Your task to perform on an android device: snooze an email in the gmail app Image 0: 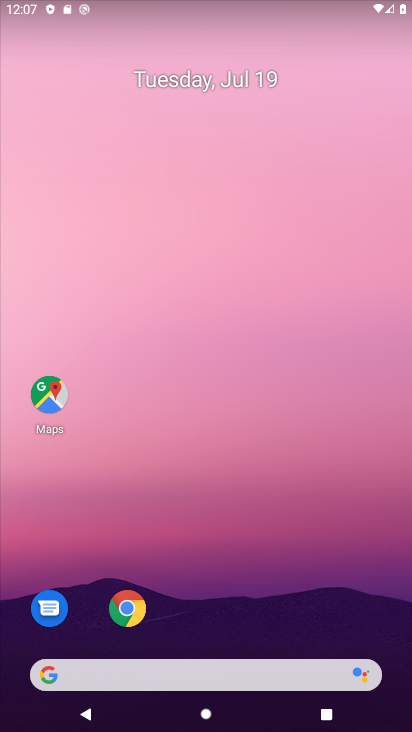
Step 0: drag from (273, 599) to (256, 381)
Your task to perform on an android device: snooze an email in the gmail app Image 1: 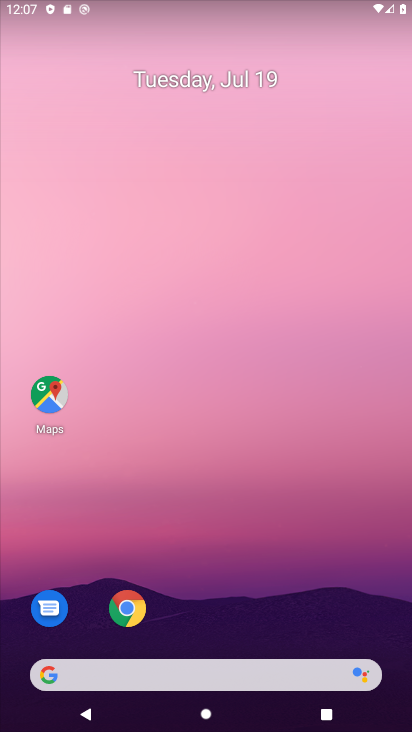
Step 1: drag from (262, 412) to (215, 54)
Your task to perform on an android device: snooze an email in the gmail app Image 2: 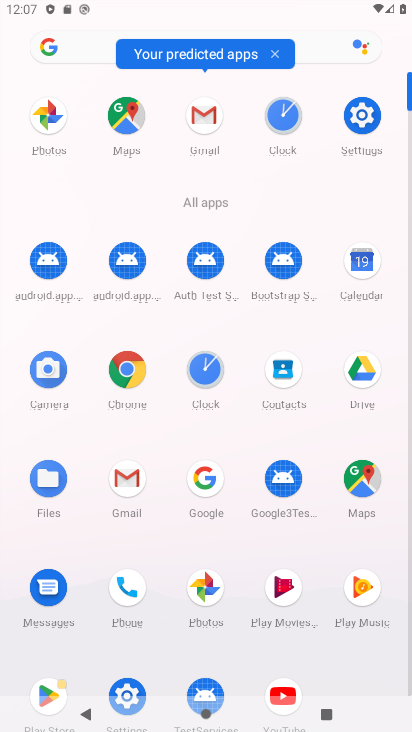
Step 2: click (130, 477)
Your task to perform on an android device: snooze an email in the gmail app Image 3: 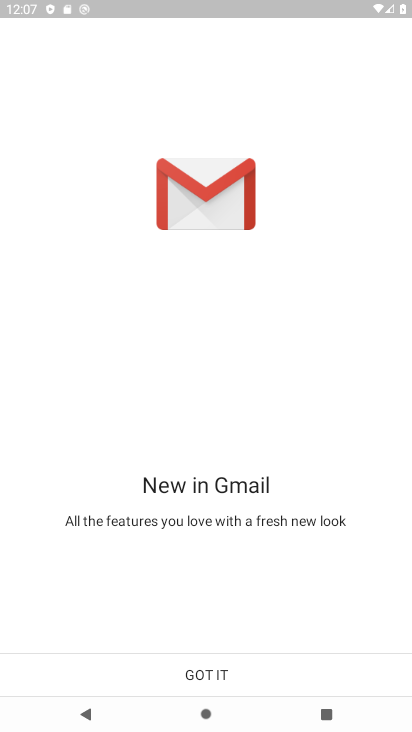
Step 3: click (206, 672)
Your task to perform on an android device: snooze an email in the gmail app Image 4: 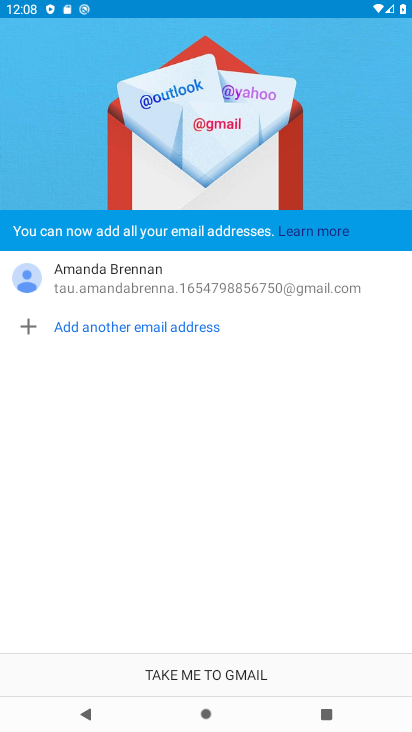
Step 4: click (225, 676)
Your task to perform on an android device: snooze an email in the gmail app Image 5: 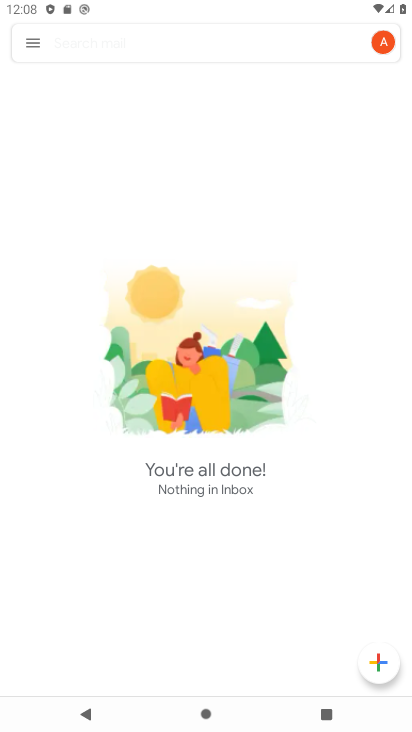
Step 5: click (27, 44)
Your task to perform on an android device: snooze an email in the gmail app Image 6: 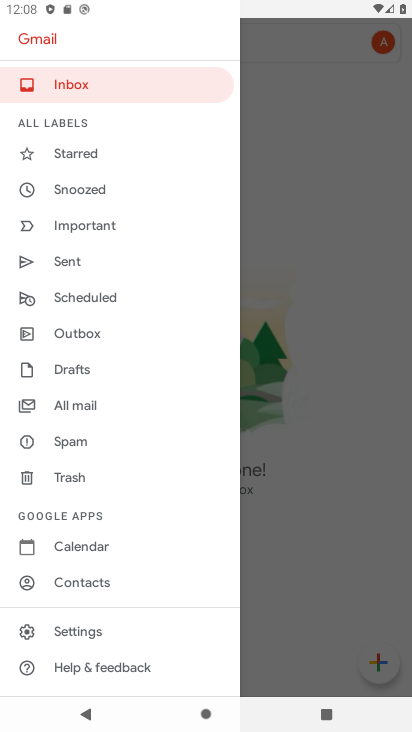
Step 6: click (70, 408)
Your task to perform on an android device: snooze an email in the gmail app Image 7: 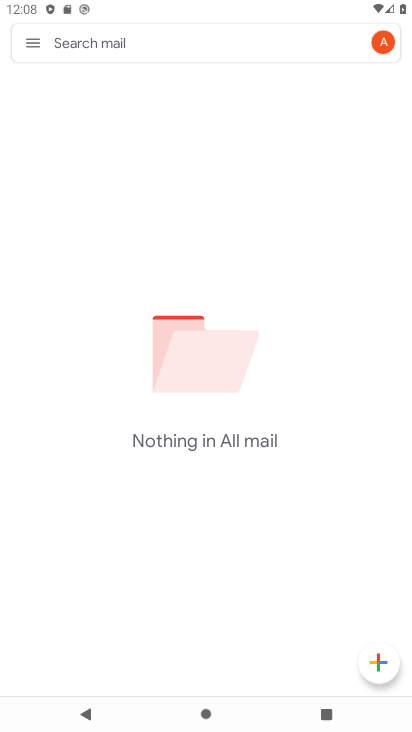
Step 7: task complete